Your task to perform on an android device: Search for pizza restaurants on Maps Image 0: 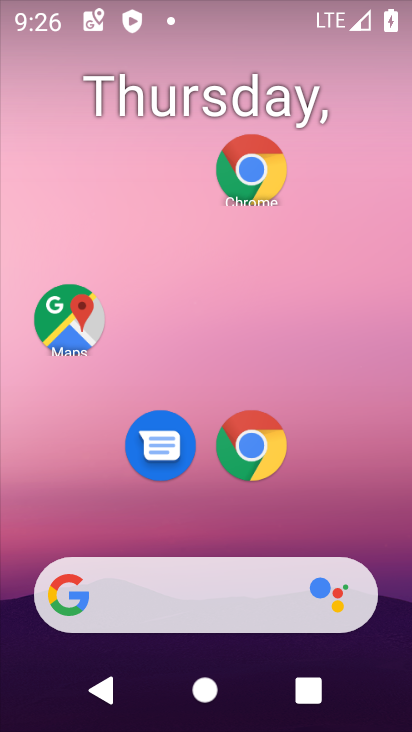
Step 0: drag from (178, 521) to (266, 0)
Your task to perform on an android device: Search for pizza restaurants on Maps Image 1: 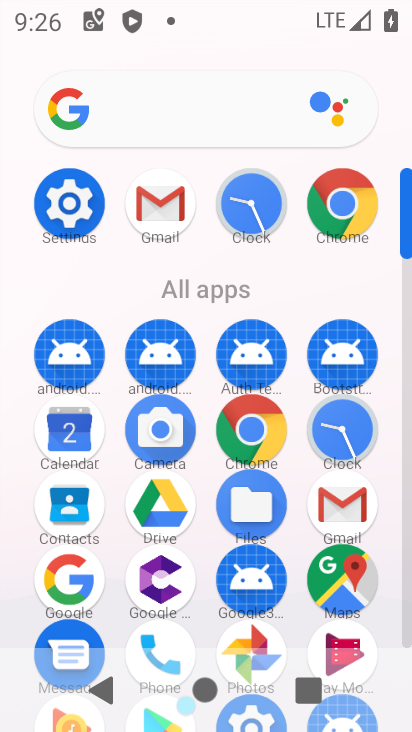
Step 1: click (353, 578)
Your task to perform on an android device: Search for pizza restaurants on Maps Image 2: 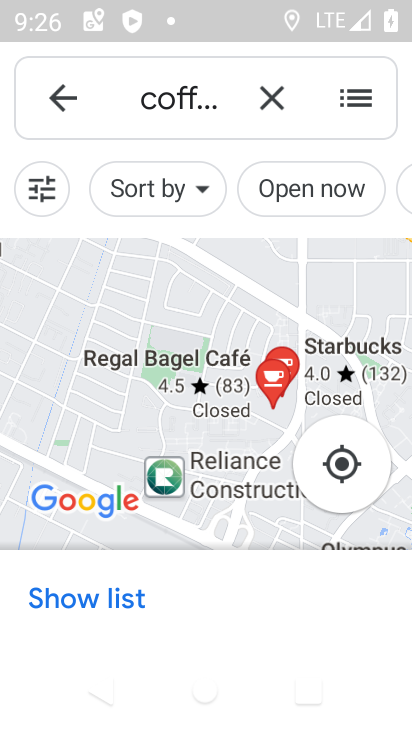
Step 2: click (277, 94)
Your task to perform on an android device: Search for pizza restaurants on Maps Image 3: 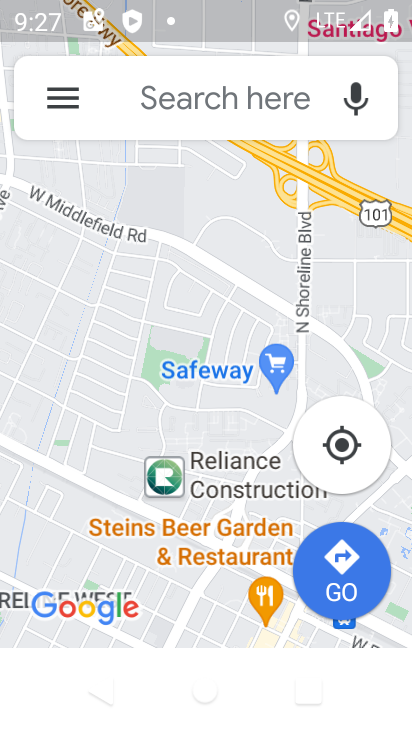
Step 3: click (250, 108)
Your task to perform on an android device: Search for pizza restaurants on Maps Image 4: 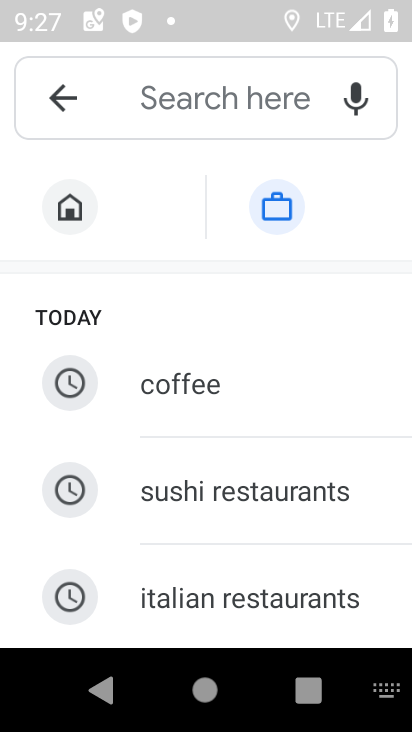
Step 4: drag from (220, 587) to (157, 160)
Your task to perform on an android device: Search for pizza restaurants on Maps Image 5: 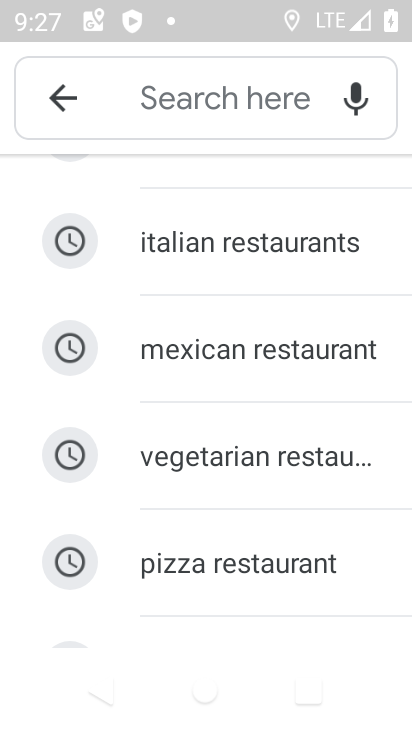
Step 5: click (206, 548)
Your task to perform on an android device: Search for pizza restaurants on Maps Image 6: 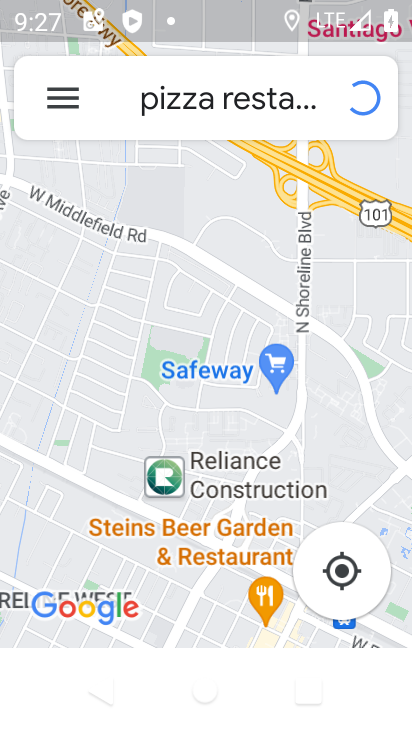
Step 6: task complete